Your task to perform on an android device: set the timer Image 0: 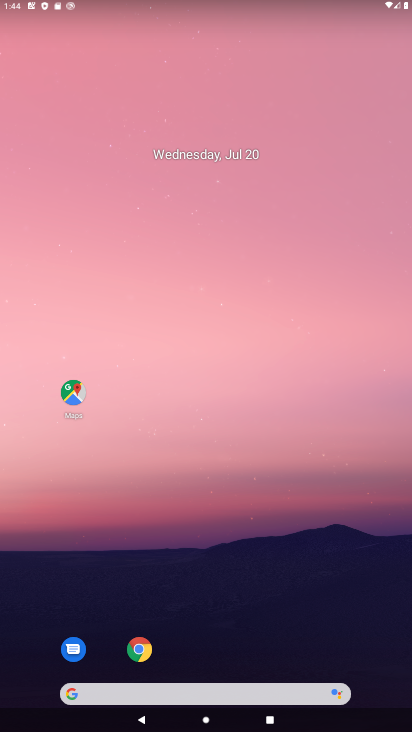
Step 0: drag from (326, 584) to (290, 157)
Your task to perform on an android device: set the timer Image 1: 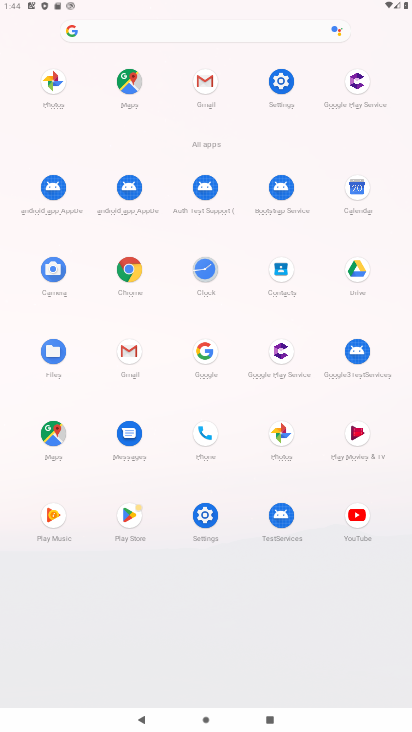
Step 1: click (209, 274)
Your task to perform on an android device: set the timer Image 2: 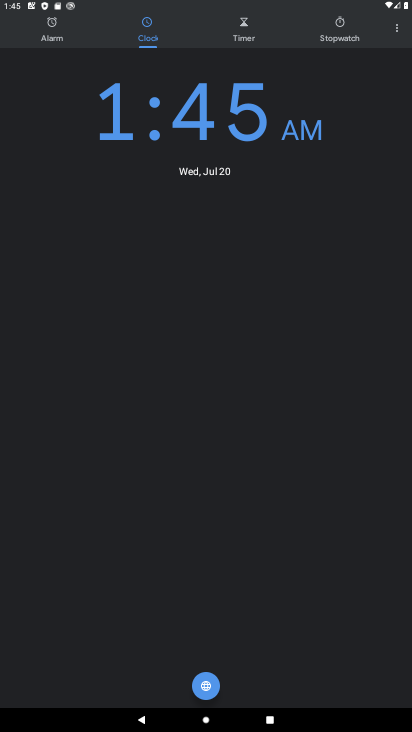
Step 2: click (234, 27)
Your task to perform on an android device: set the timer Image 3: 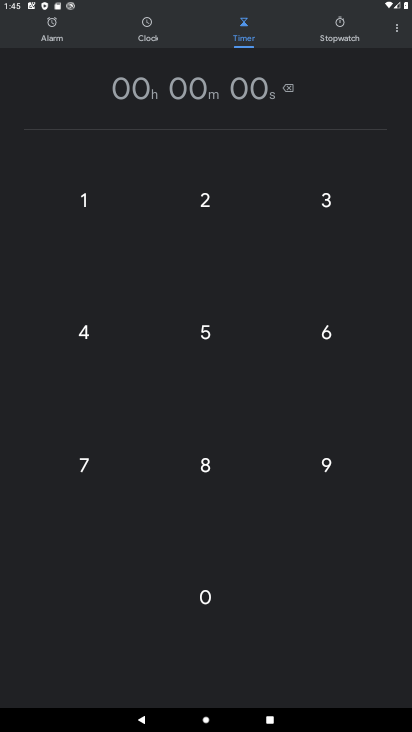
Step 3: click (210, 208)
Your task to perform on an android device: set the timer Image 4: 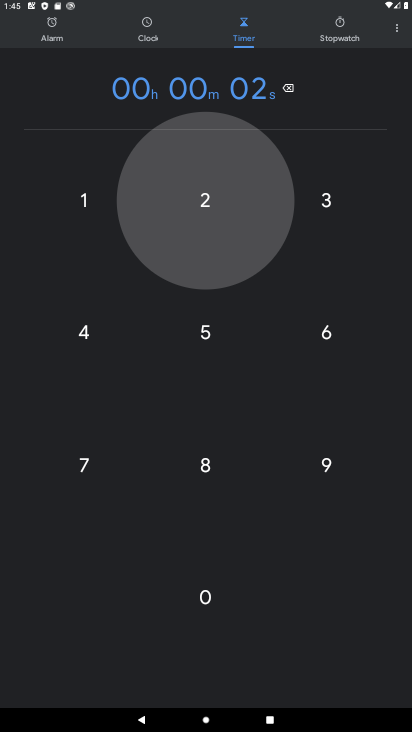
Step 4: click (102, 208)
Your task to perform on an android device: set the timer Image 5: 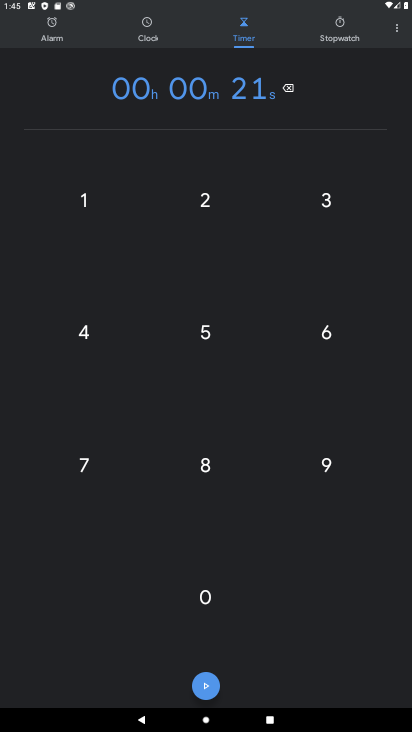
Step 5: click (109, 315)
Your task to perform on an android device: set the timer Image 6: 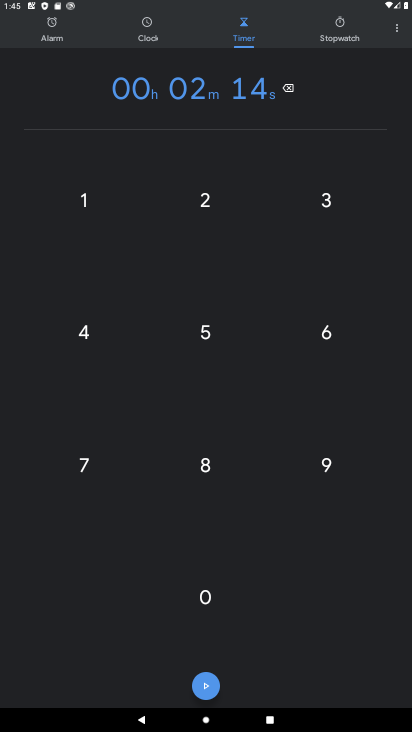
Step 6: click (309, 484)
Your task to perform on an android device: set the timer Image 7: 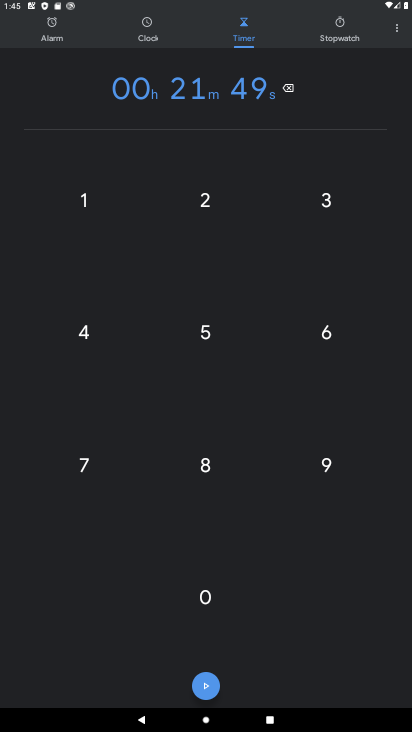
Step 7: click (308, 358)
Your task to perform on an android device: set the timer Image 8: 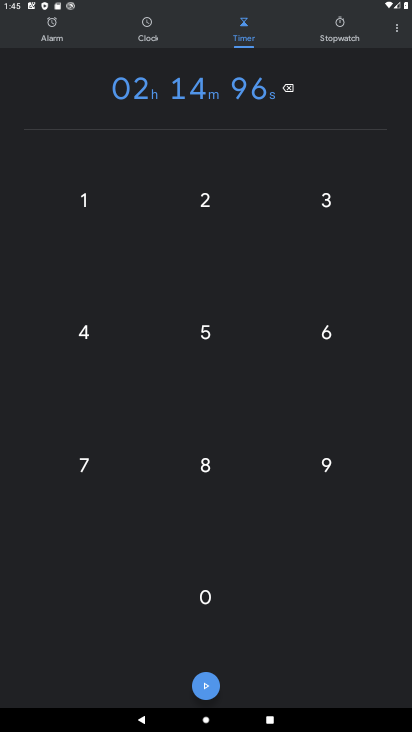
Step 8: click (211, 682)
Your task to perform on an android device: set the timer Image 9: 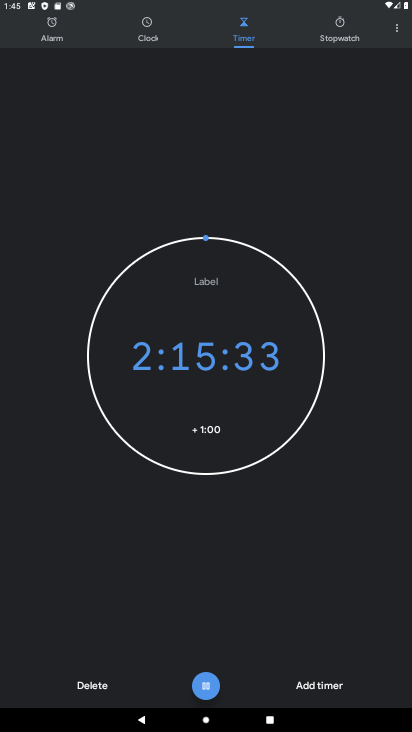
Step 9: task complete